Your task to perform on an android device: Go to wifi settings Image 0: 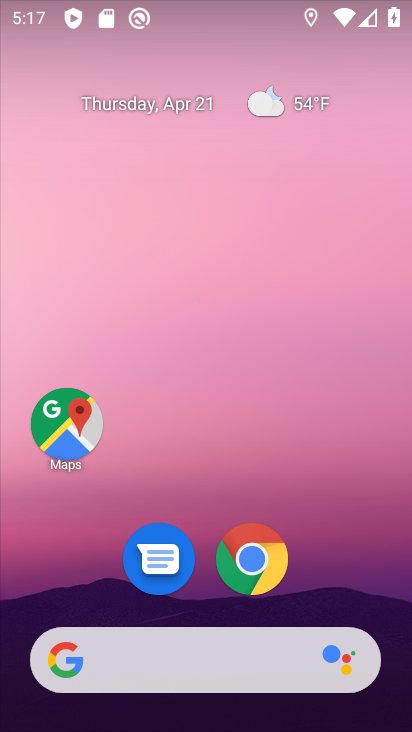
Step 0: drag from (367, 535) to (338, 32)
Your task to perform on an android device: Go to wifi settings Image 1: 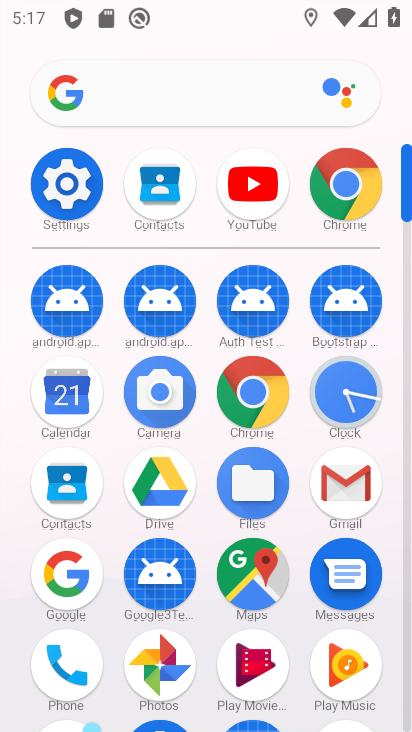
Step 1: click (60, 190)
Your task to perform on an android device: Go to wifi settings Image 2: 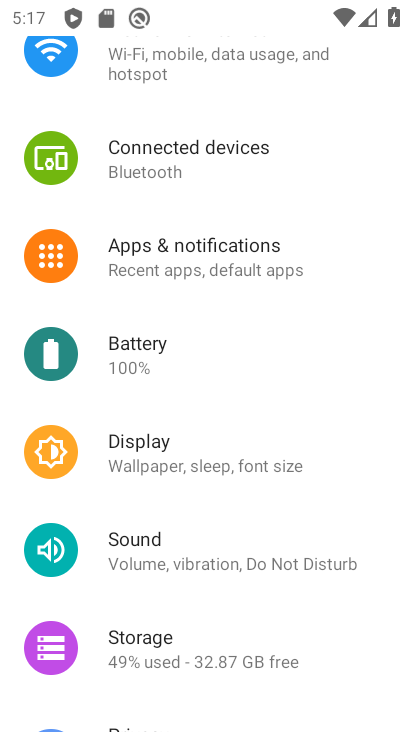
Step 2: drag from (144, 199) to (103, 645)
Your task to perform on an android device: Go to wifi settings Image 3: 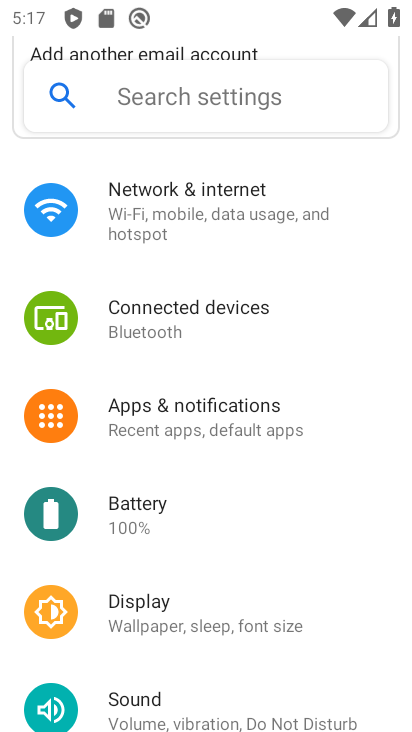
Step 3: drag from (269, 323) to (213, 674)
Your task to perform on an android device: Go to wifi settings Image 4: 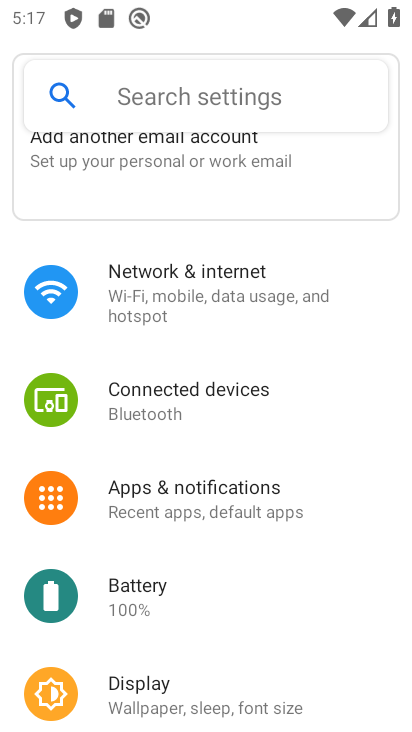
Step 4: click (212, 306)
Your task to perform on an android device: Go to wifi settings Image 5: 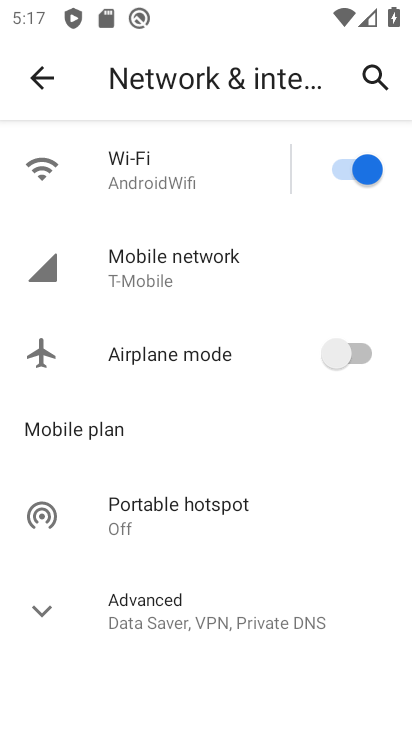
Step 5: click (156, 172)
Your task to perform on an android device: Go to wifi settings Image 6: 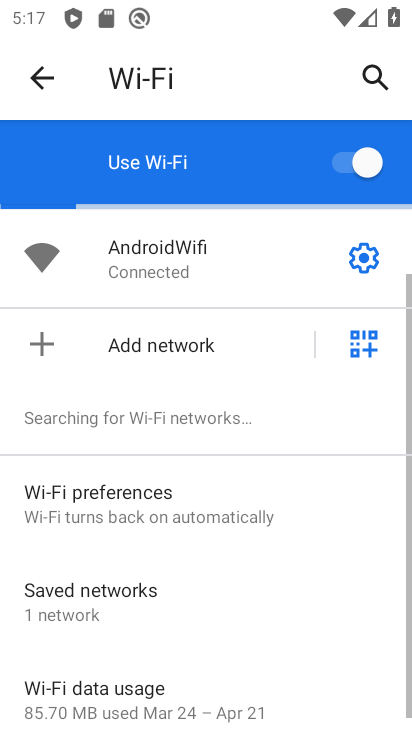
Step 6: task complete